Your task to perform on an android device: open app "Duolingo: language lessons" (install if not already installed), go to login, and select forgot password Image 0: 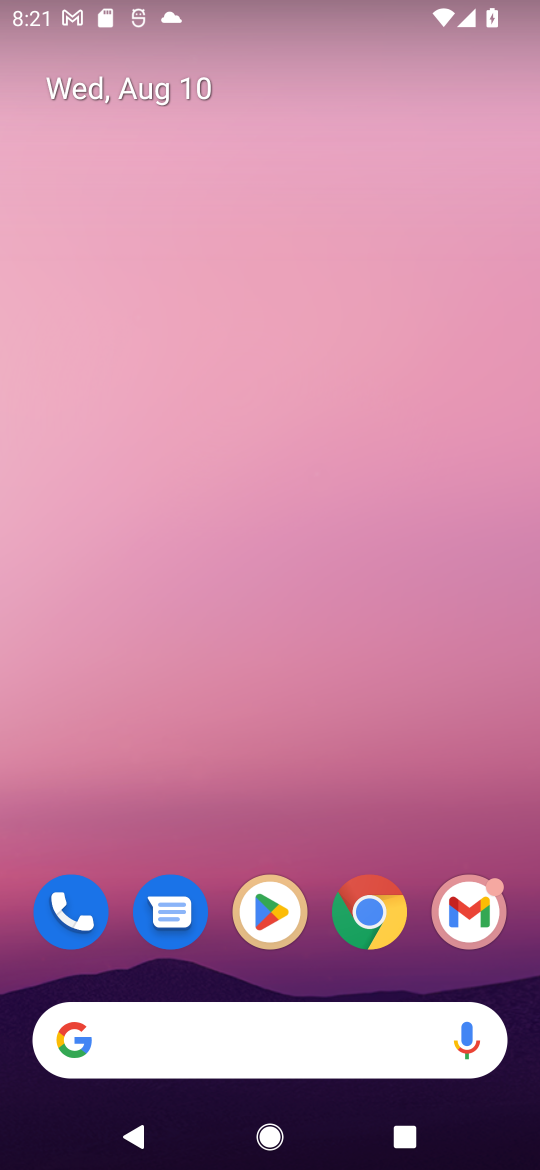
Step 0: drag from (538, 979) to (255, 17)
Your task to perform on an android device: open app "Duolingo: language lessons" (install if not already installed), go to login, and select forgot password Image 1: 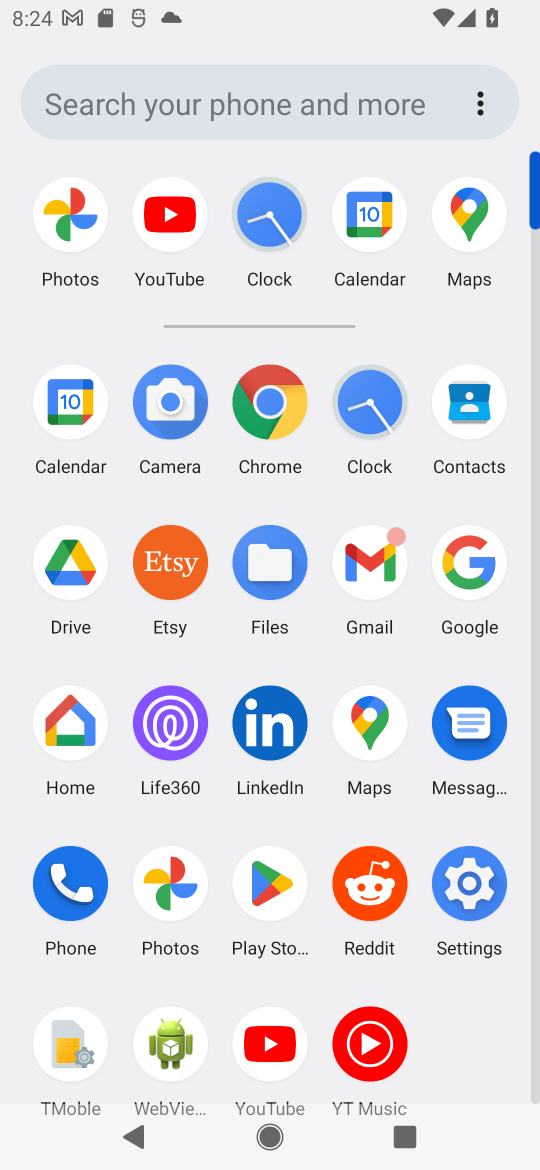
Step 1: click (274, 882)
Your task to perform on an android device: open app "Duolingo: language lessons" (install if not already installed), go to login, and select forgot password Image 2: 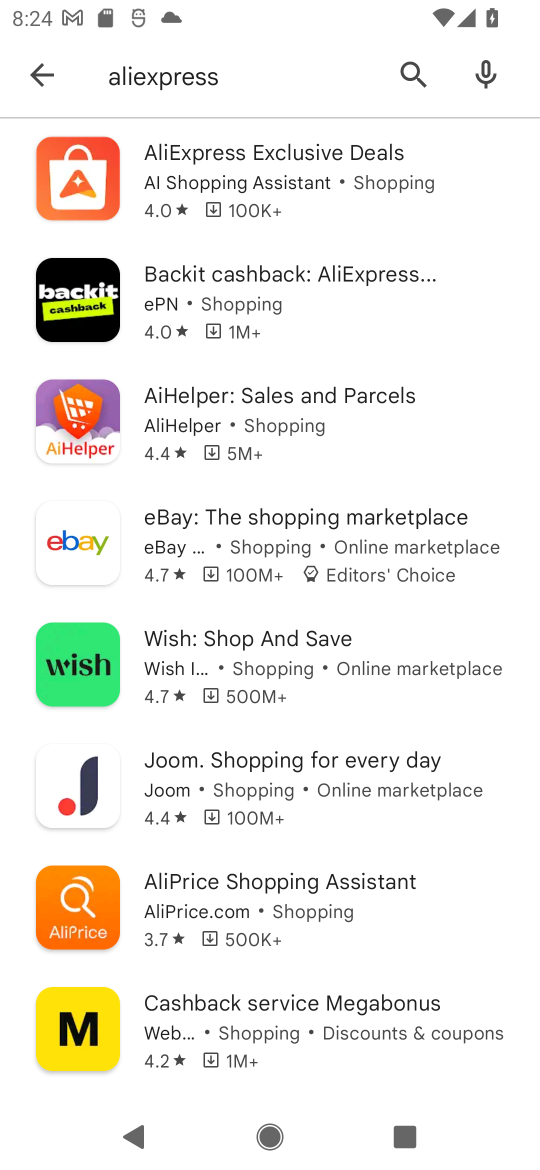
Step 2: press back button
Your task to perform on an android device: open app "Duolingo: language lessons" (install if not already installed), go to login, and select forgot password Image 3: 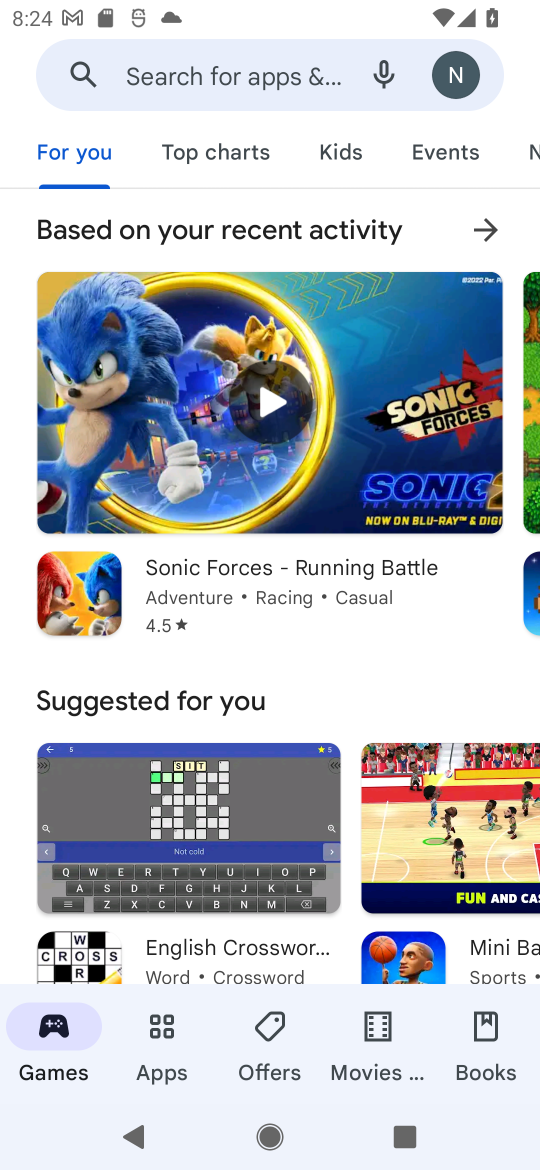
Step 3: click (203, 87)
Your task to perform on an android device: open app "Duolingo: language lessons" (install if not already installed), go to login, and select forgot password Image 4: 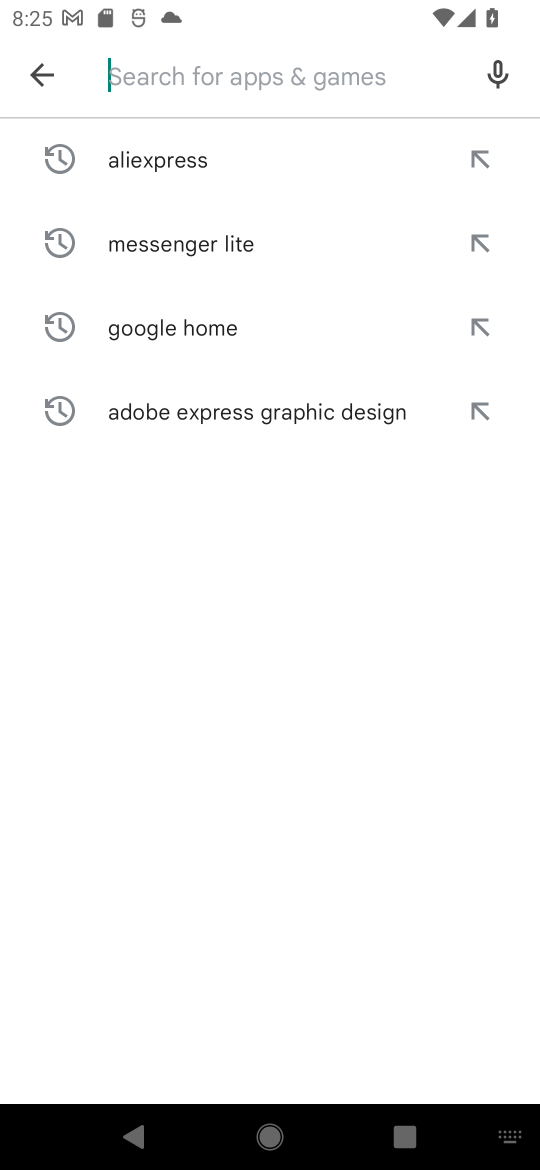
Step 4: type "Duolingo: language lessons"
Your task to perform on an android device: open app "Duolingo: language lessons" (install if not already installed), go to login, and select forgot password Image 5: 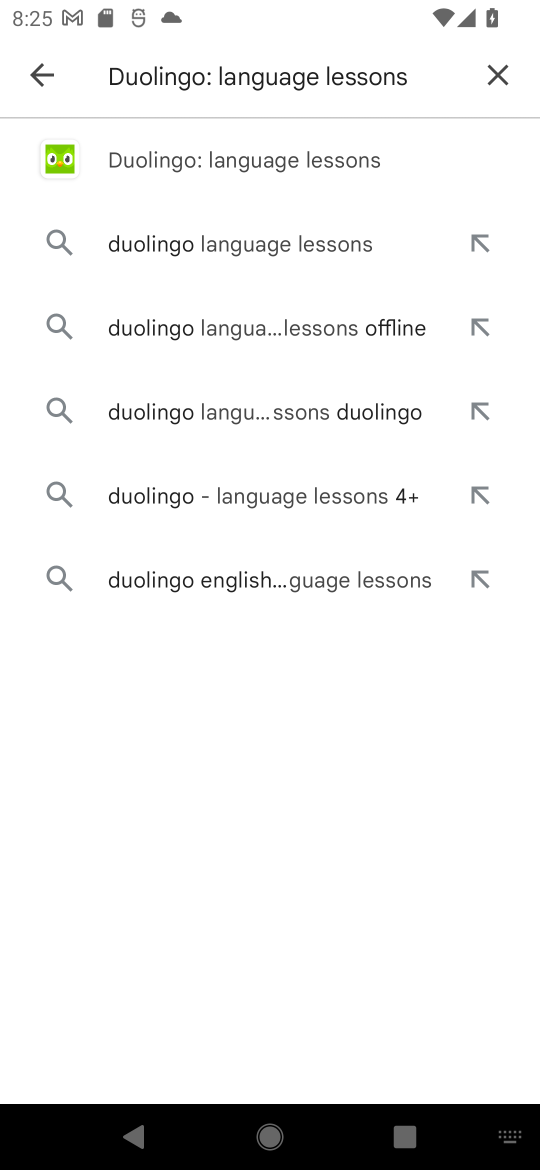
Step 5: click (275, 167)
Your task to perform on an android device: open app "Duolingo: language lessons" (install if not already installed), go to login, and select forgot password Image 6: 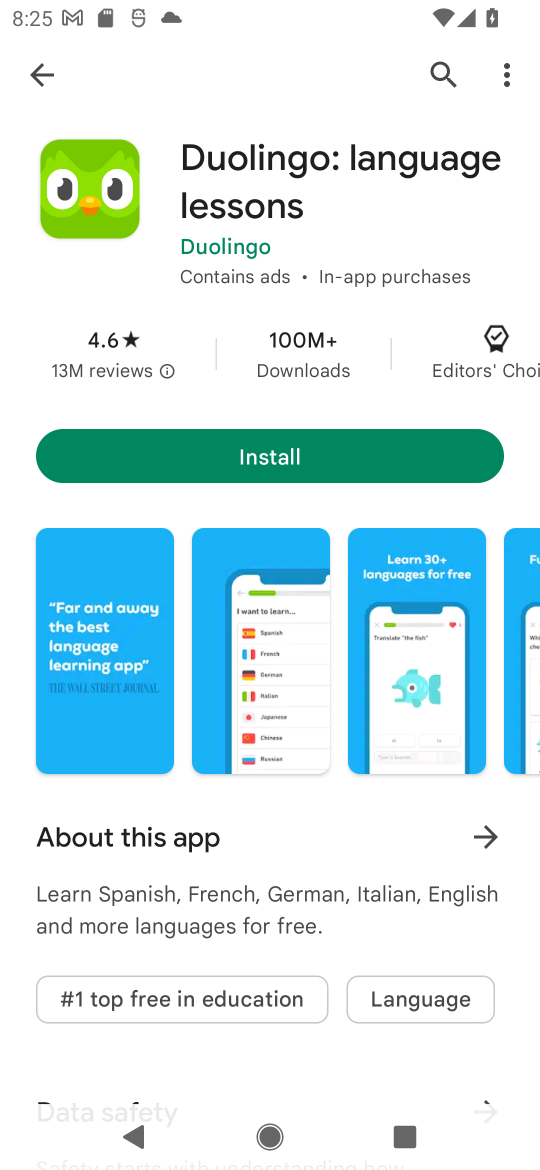
Step 6: task complete